Your task to perform on an android device: add a contact in the contacts app Image 0: 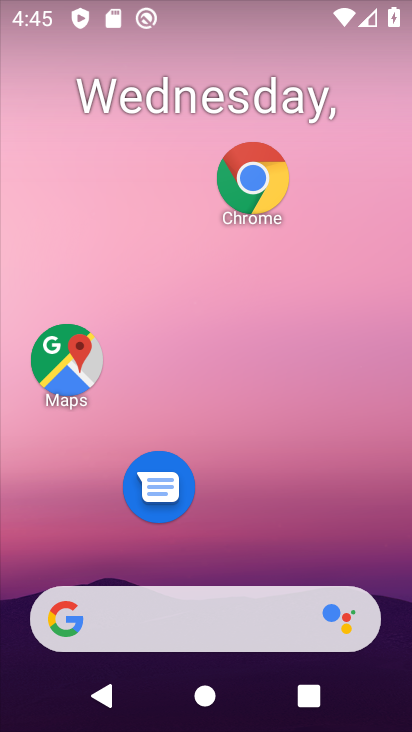
Step 0: drag from (275, 501) to (204, 89)
Your task to perform on an android device: add a contact in the contacts app Image 1: 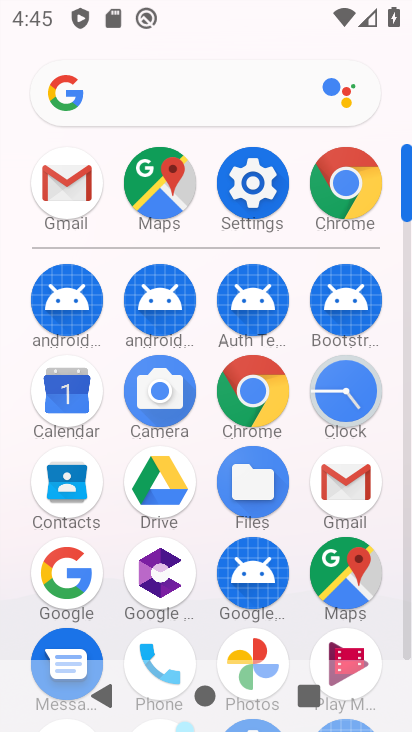
Step 1: click (76, 478)
Your task to perform on an android device: add a contact in the contacts app Image 2: 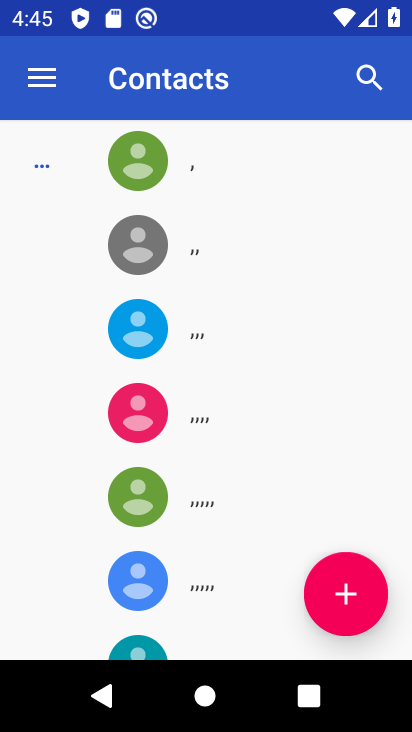
Step 2: click (335, 585)
Your task to perform on an android device: add a contact in the contacts app Image 3: 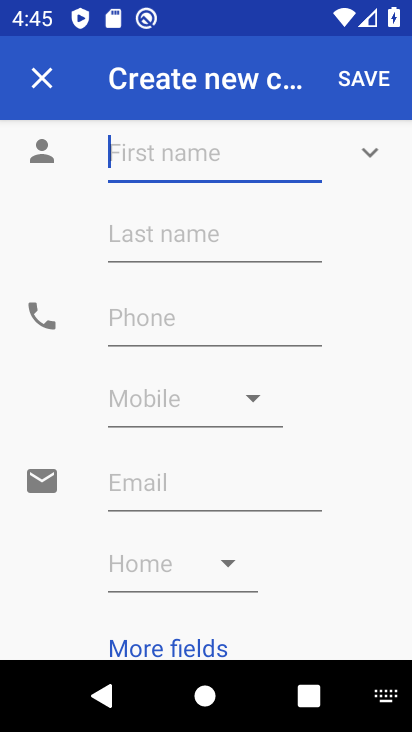
Step 3: type "amar teja"
Your task to perform on an android device: add a contact in the contacts app Image 4: 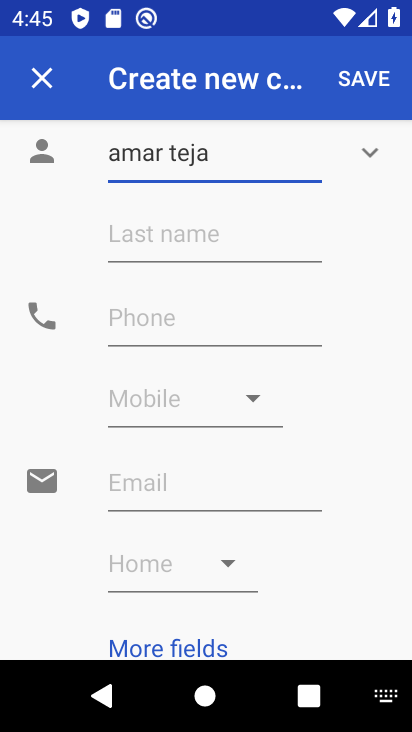
Step 4: click (353, 68)
Your task to perform on an android device: add a contact in the contacts app Image 5: 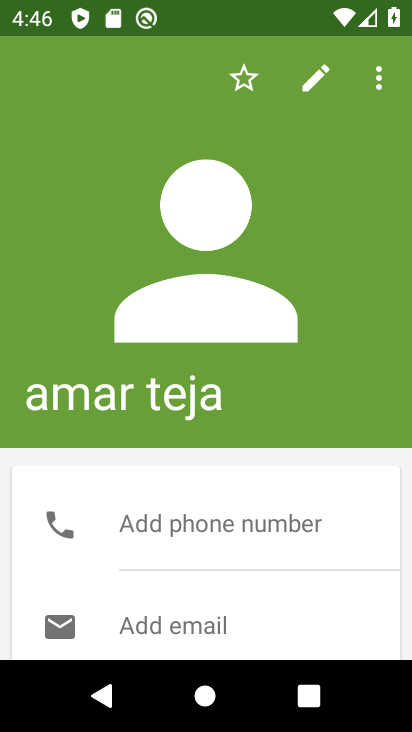
Step 5: task complete